Your task to perform on an android device: turn on wifi Image 0: 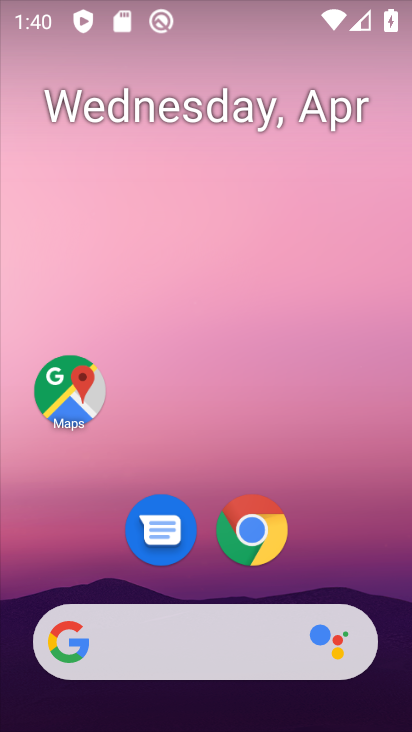
Step 0: drag from (305, 6) to (320, 348)
Your task to perform on an android device: turn on wifi Image 1: 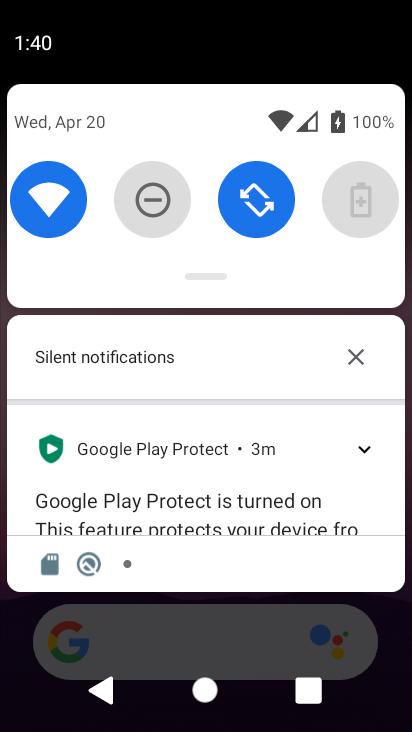
Step 1: task complete